Your task to perform on an android device: change keyboard looks Image 0: 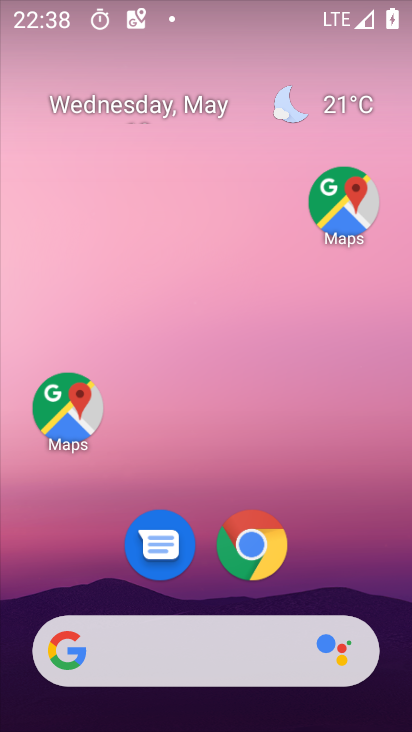
Step 0: drag from (306, 586) to (337, 112)
Your task to perform on an android device: change keyboard looks Image 1: 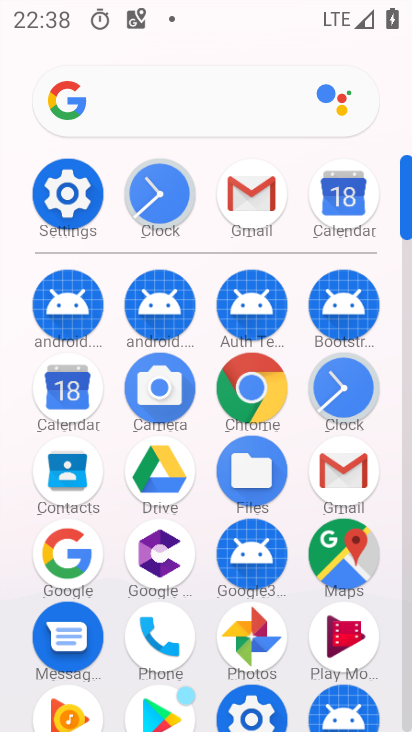
Step 1: click (65, 191)
Your task to perform on an android device: change keyboard looks Image 2: 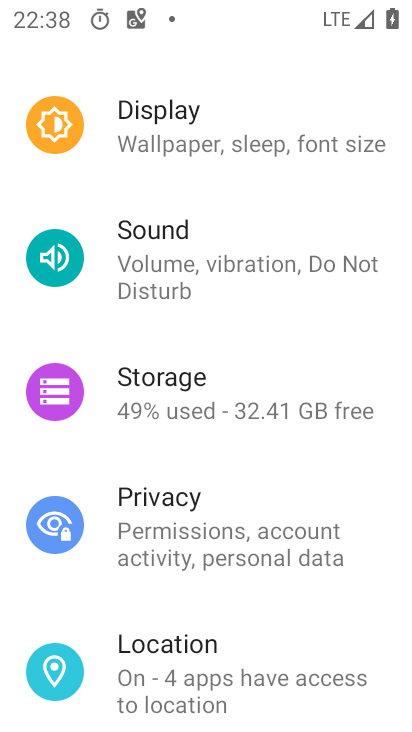
Step 2: drag from (214, 626) to (304, 191)
Your task to perform on an android device: change keyboard looks Image 3: 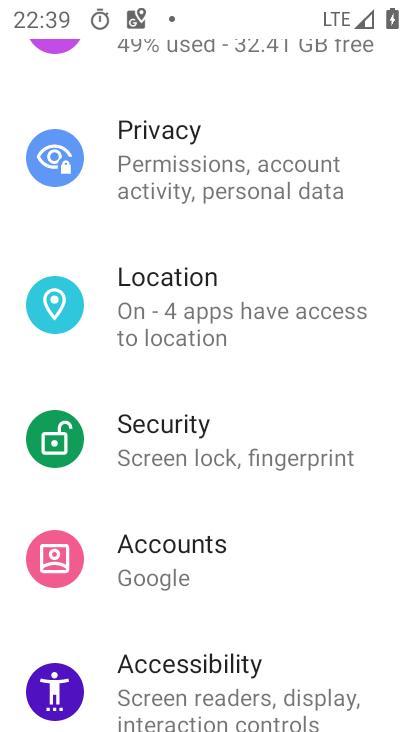
Step 3: drag from (244, 672) to (325, 294)
Your task to perform on an android device: change keyboard looks Image 4: 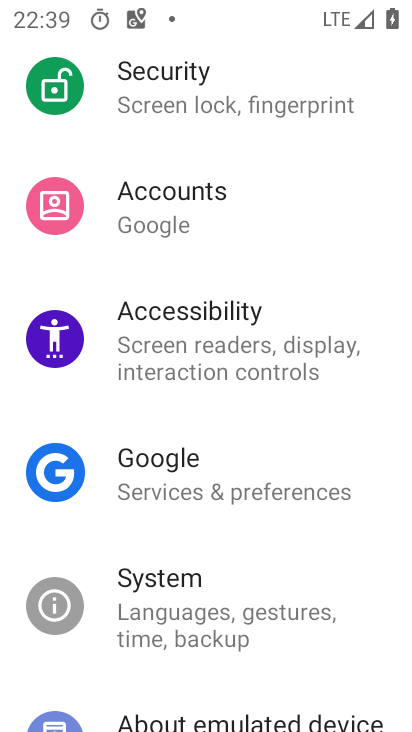
Step 4: click (158, 619)
Your task to perform on an android device: change keyboard looks Image 5: 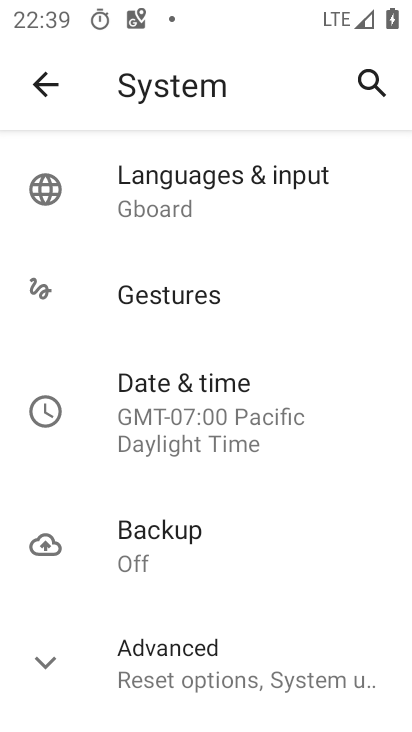
Step 5: click (219, 194)
Your task to perform on an android device: change keyboard looks Image 6: 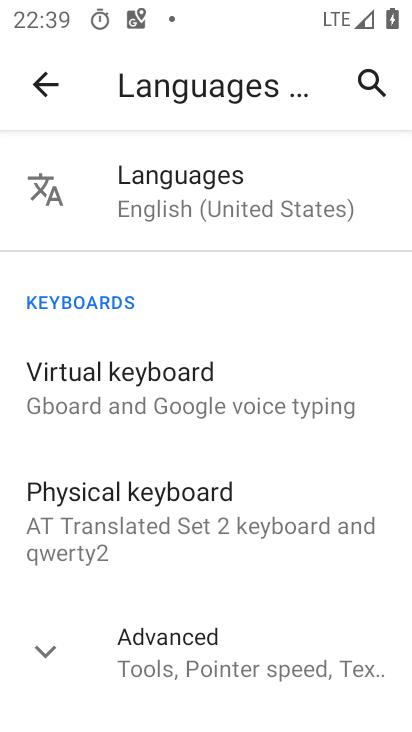
Step 6: click (130, 369)
Your task to perform on an android device: change keyboard looks Image 7: 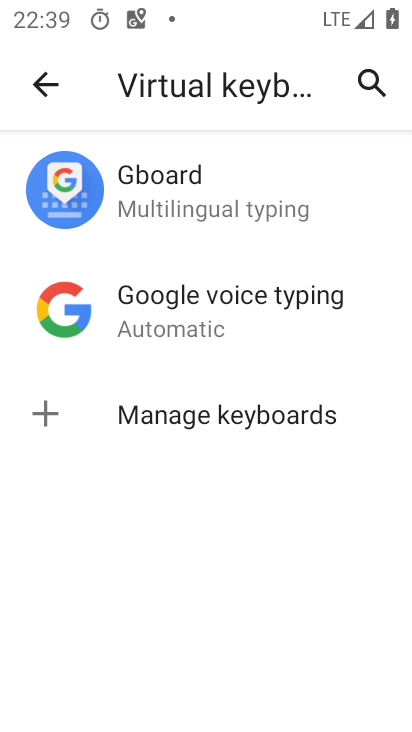
Step 7: click (217, 175)
Your task to perform on an android device: change keyboard looks Image 8: 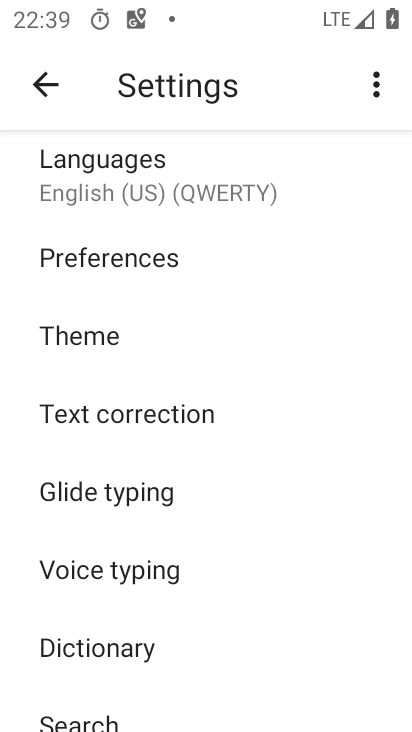
Step 8: click (109, 329)
Your task to perform on an android device: change keyboard looks Image 9: 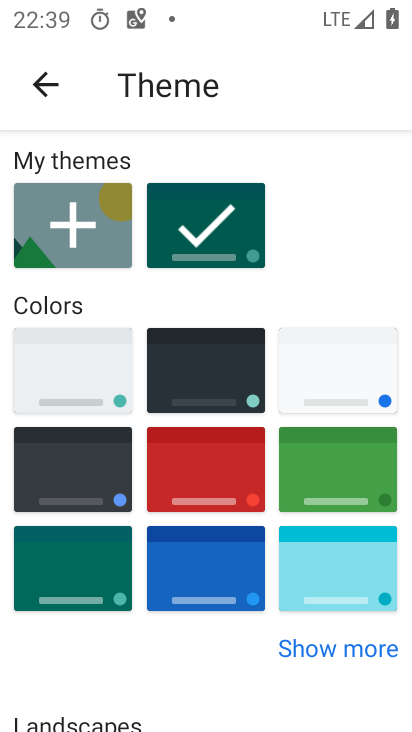
Step 9: click (243, 494)
Your task to perform on an android device: change keyboard looks Image 10: 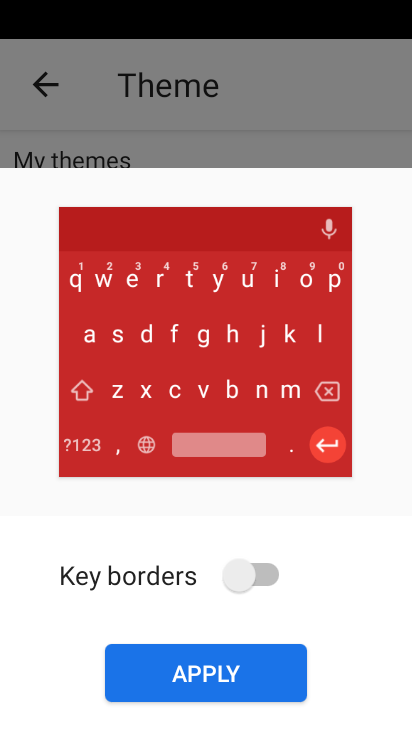
Step 10: click (195, 666)
Your task to perform on an android device: change keyboard looks Image 11: 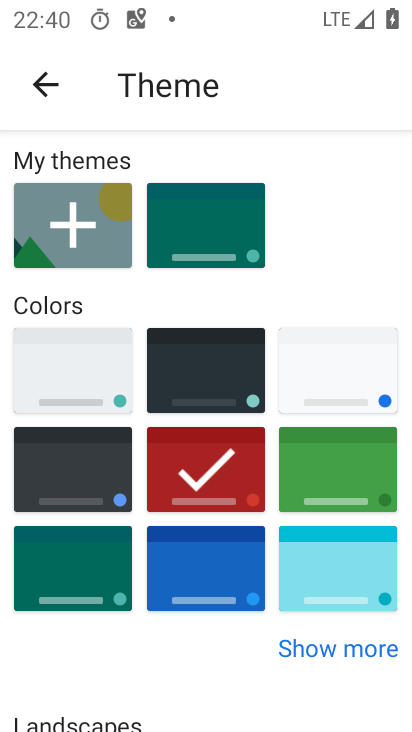
Step 11: task complete